Your task to perform on an android device: Search for sushi restaurants on Maps Image 0: 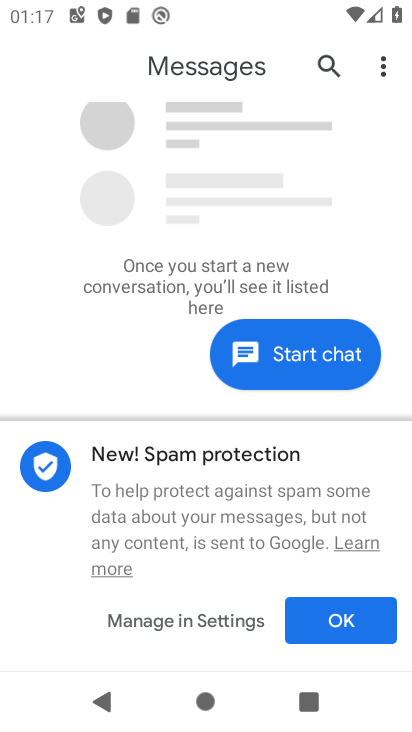
Step 0: press home button
Your task to perform on an android device: Search for sushi restaurants on Maps Image 1: 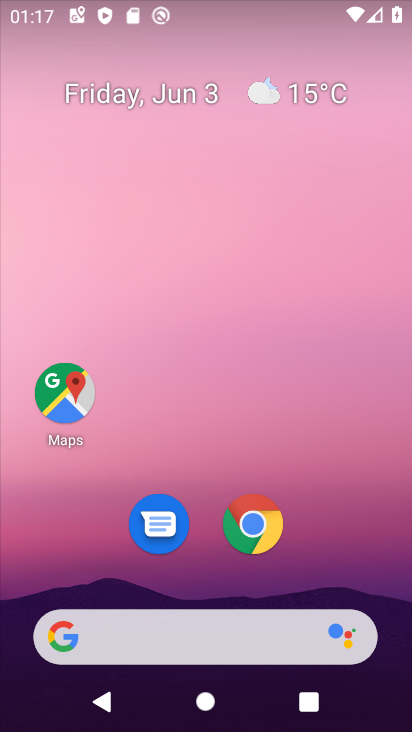
Step 1: click (77, 379)
Your task to perform on an android device: Search for sushi restaurants on Maps Image 2: 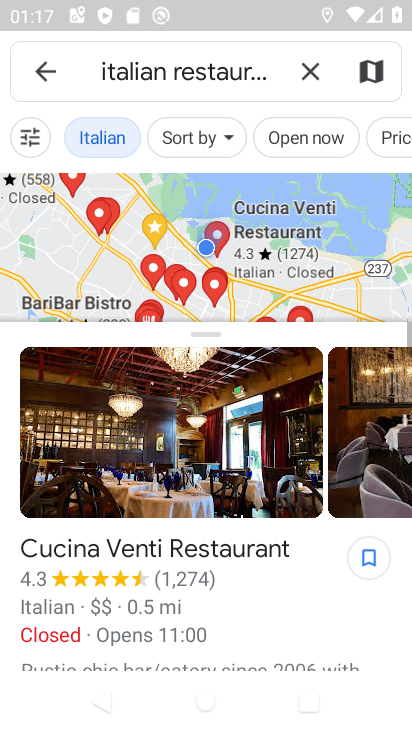
Step 2: click (308, 70)
Your task to perform on an android device: Search for sushi restaurants on Maps Image 3: 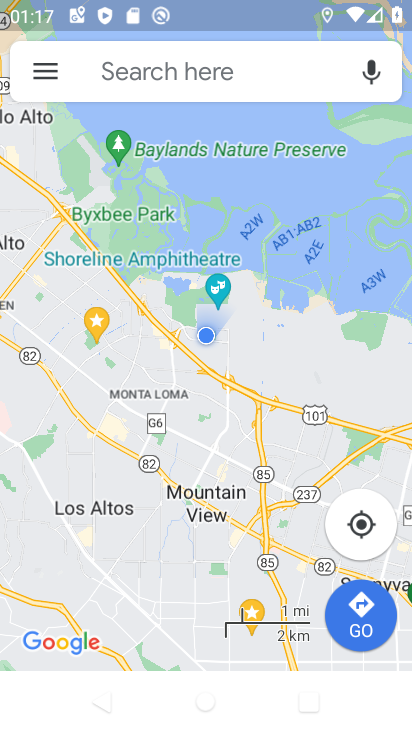
Step 3: click (194, 63)
Your task to perform on an android device: Search for sushi restaurants on Maps Image 4: 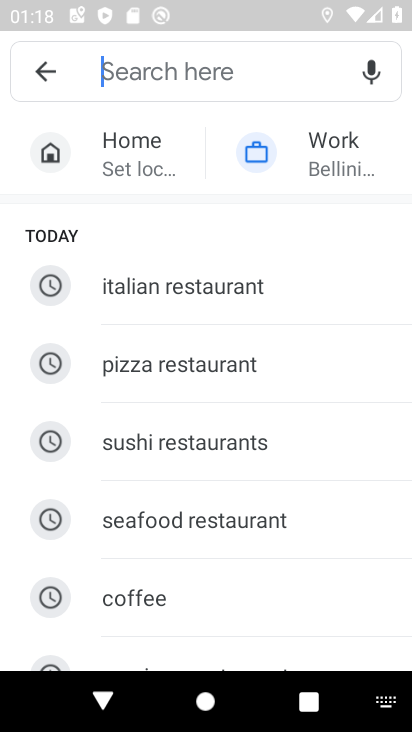
Step 4: click (222, 432)
Your task to perform on an android device: Search for sushi restaurants on Maps Image 5: 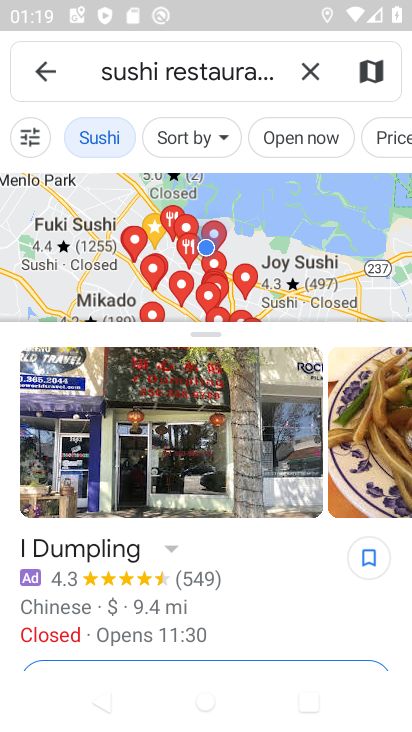
Step 5: task complete